Your task to perform on an android device: Turn off the flashlight Image 0: 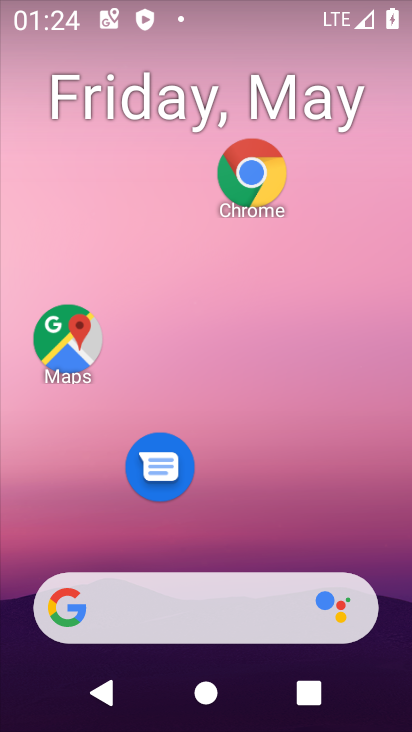
Step 0: drag from (245, 665) to (229, 148)
Your task to perform on an android device: Turn off the flashlight Image 1: 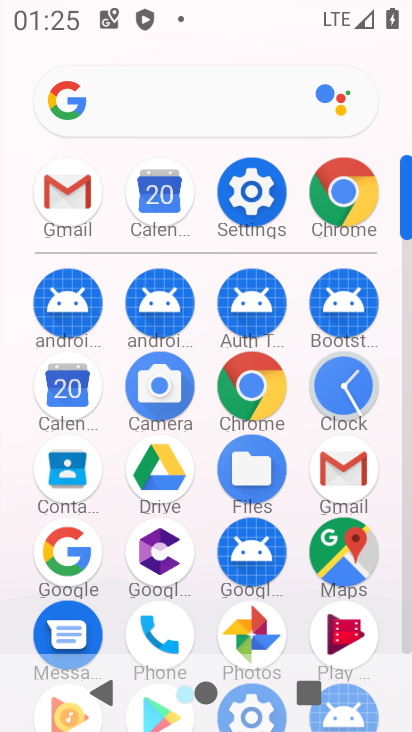
Step 1: click (245, 182)
Your task to perform on an android device: Turn off the flashlight Image 2: 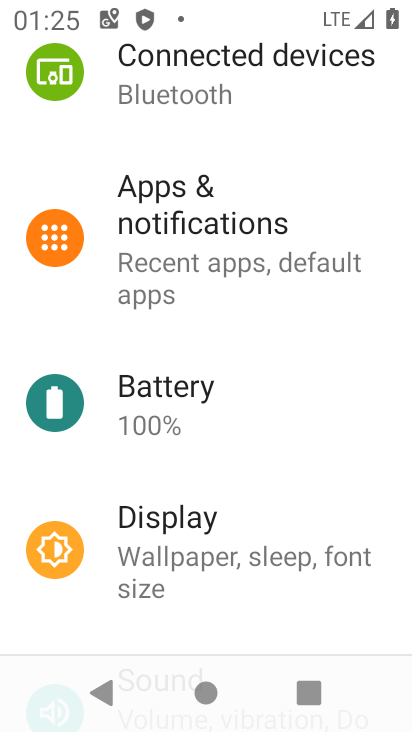
Step 2: drag from (202, 83) to (283, 286)
Your task to perform on an android device: Turn off the flashlight Image 3: 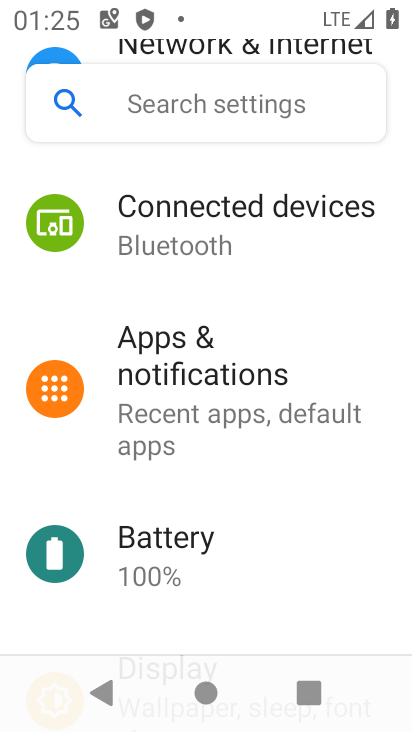
Step 3: click (185, 90)
Your task to perform on an android device: Turn off the flashlight Image 4: 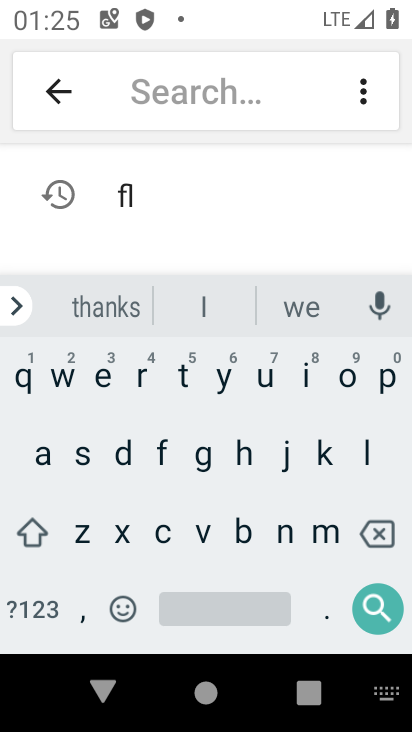
Step 4: click (151, 195)
Your task to perform on an android device: Turn off the flashlight Image 5: 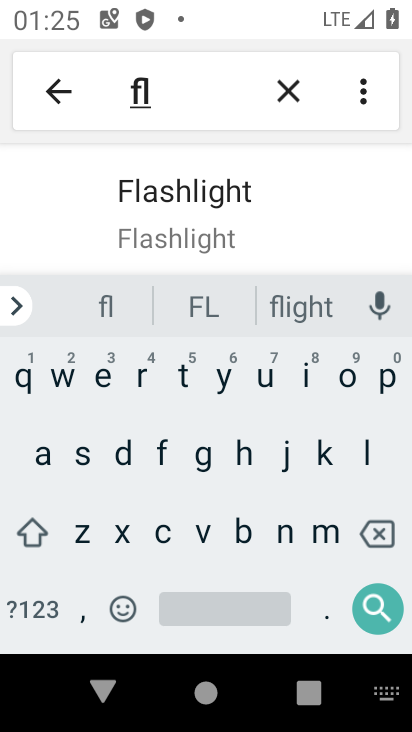
Step 5: click (156, 192)
Your task to perform on an android device: Turn off the flashlight Image 6: 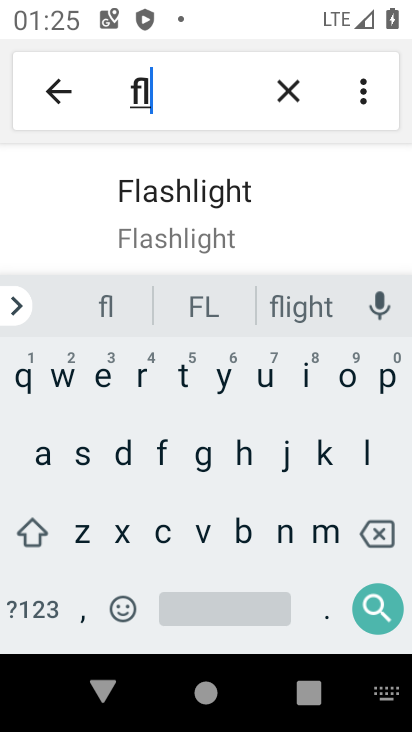
Step 6: click (197, 220)
Your task to perform on an android device: Turn off the flashlight Image 7: 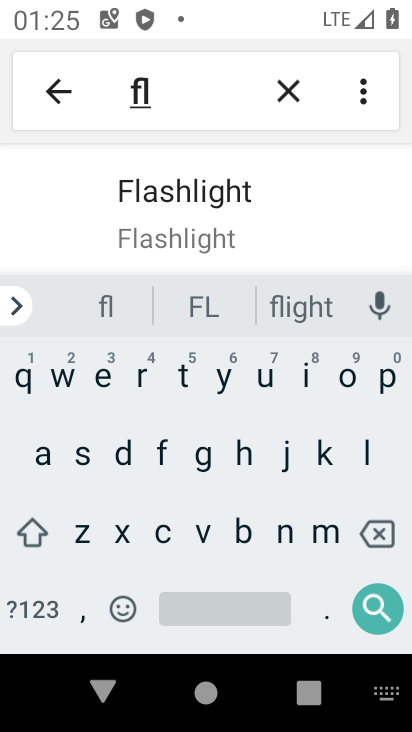
Step 7: task complete